Your task to perform on an android device: empty trash in the gmail app Image 0: 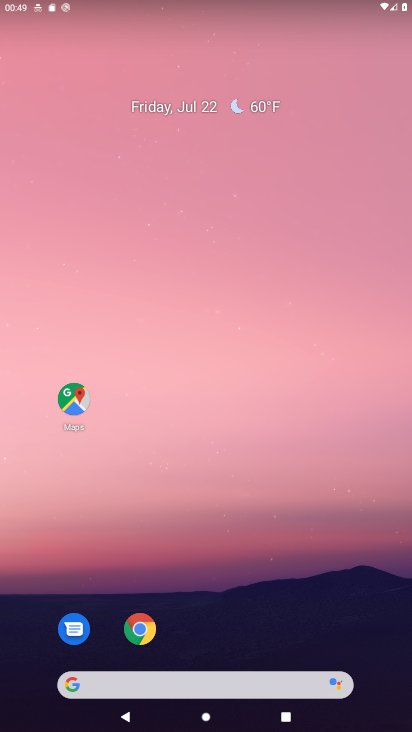
Step 0: drag from (243, 644) to (306, 396)
Your task to perform on an android device: empty trash in the gmail app Image 1: 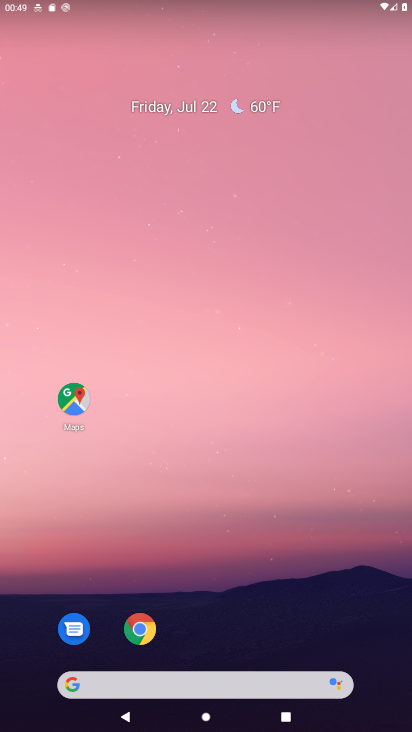
Step 1: drag from (197, 645) to (202, 289)
Your task to perform on an android device: empty trash in the gmail app Image 2: 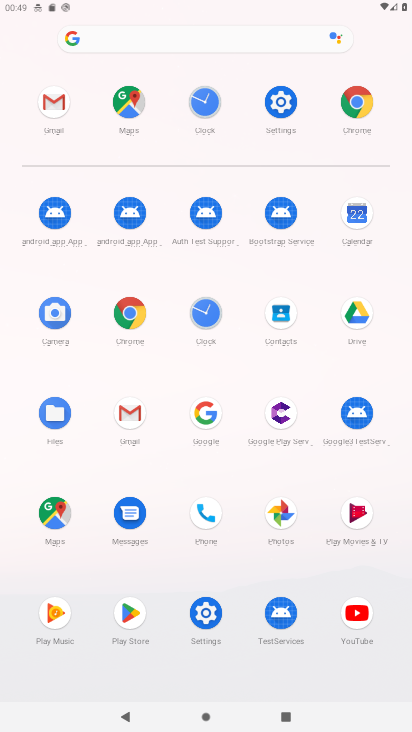
Step 2: click (129, 415)
Your task to perform on an android device: empty trash in the gmail app Image 3: 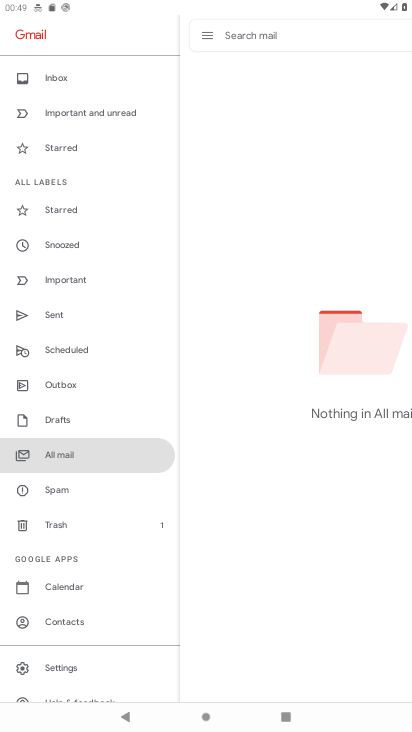
Step 3: click (66, 519)
Your task to perform on an android device: empty trash in the gmail app Image 4: 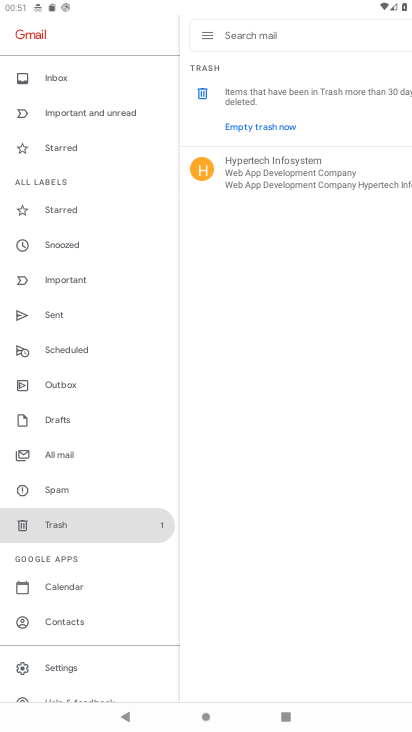
Step 4: task complete